Your task to perform on an android device: move a message to another label in the gmail app Image 0: 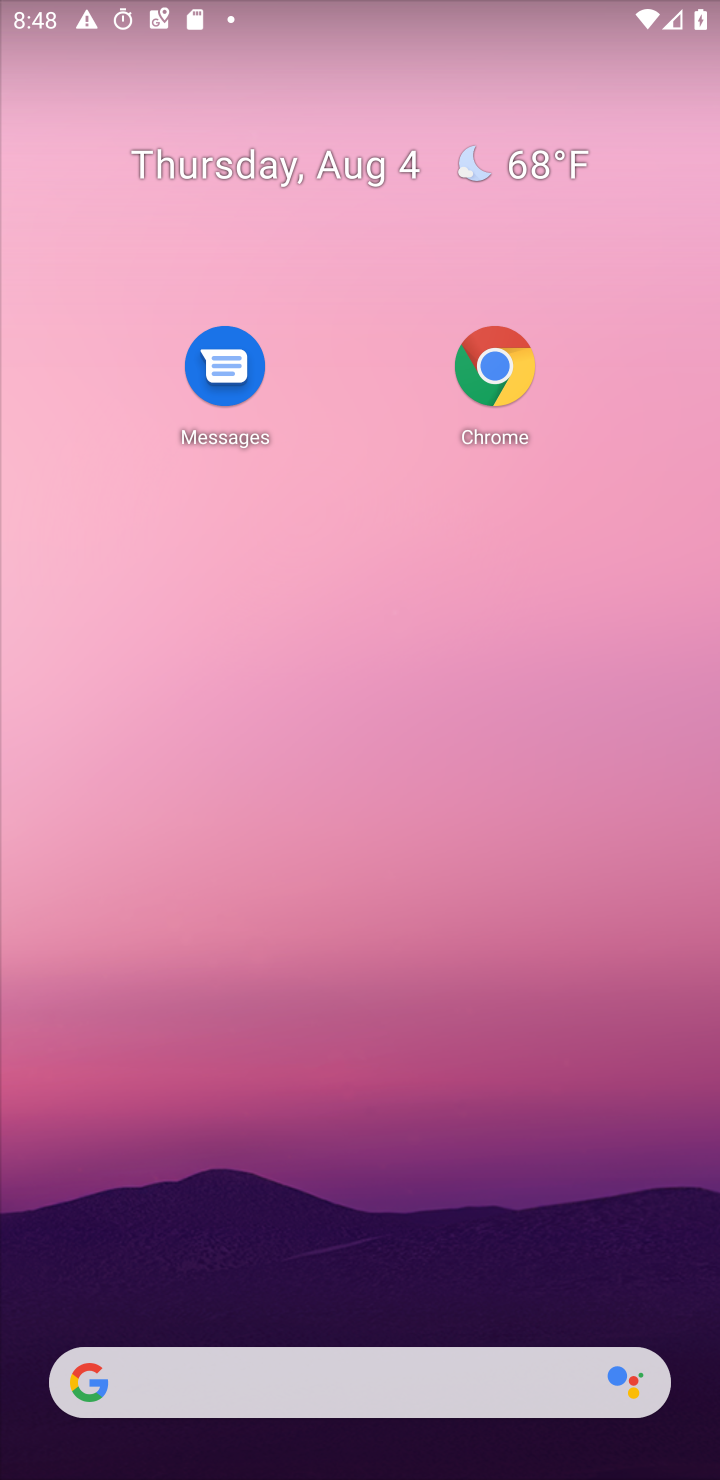
Step 0: press home button
Your task to perform on an android device: move a message to another label in the gmail app Image 1: 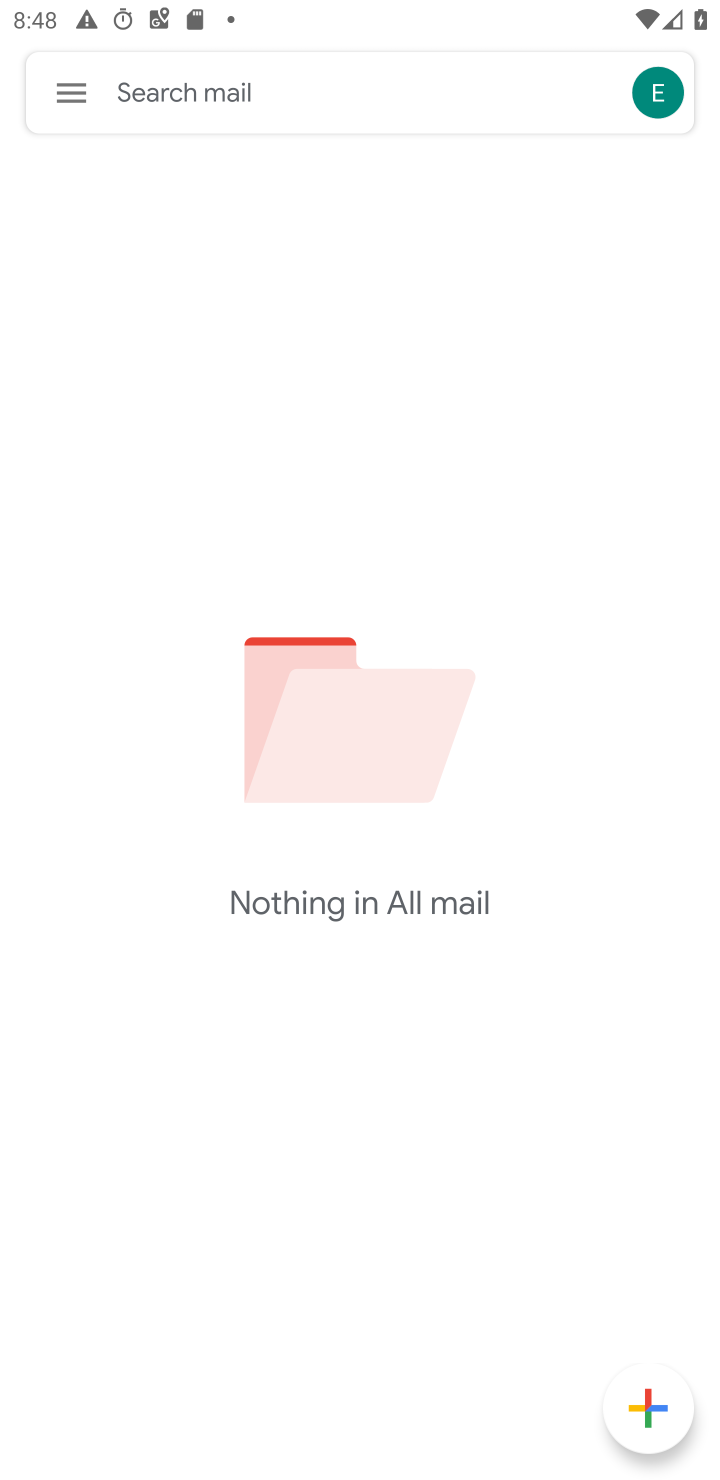
Step 1: drag from (479, 1386) to (392, 229)
Your task to perform on an android device: move a message to another label in the gmail app Image 2: 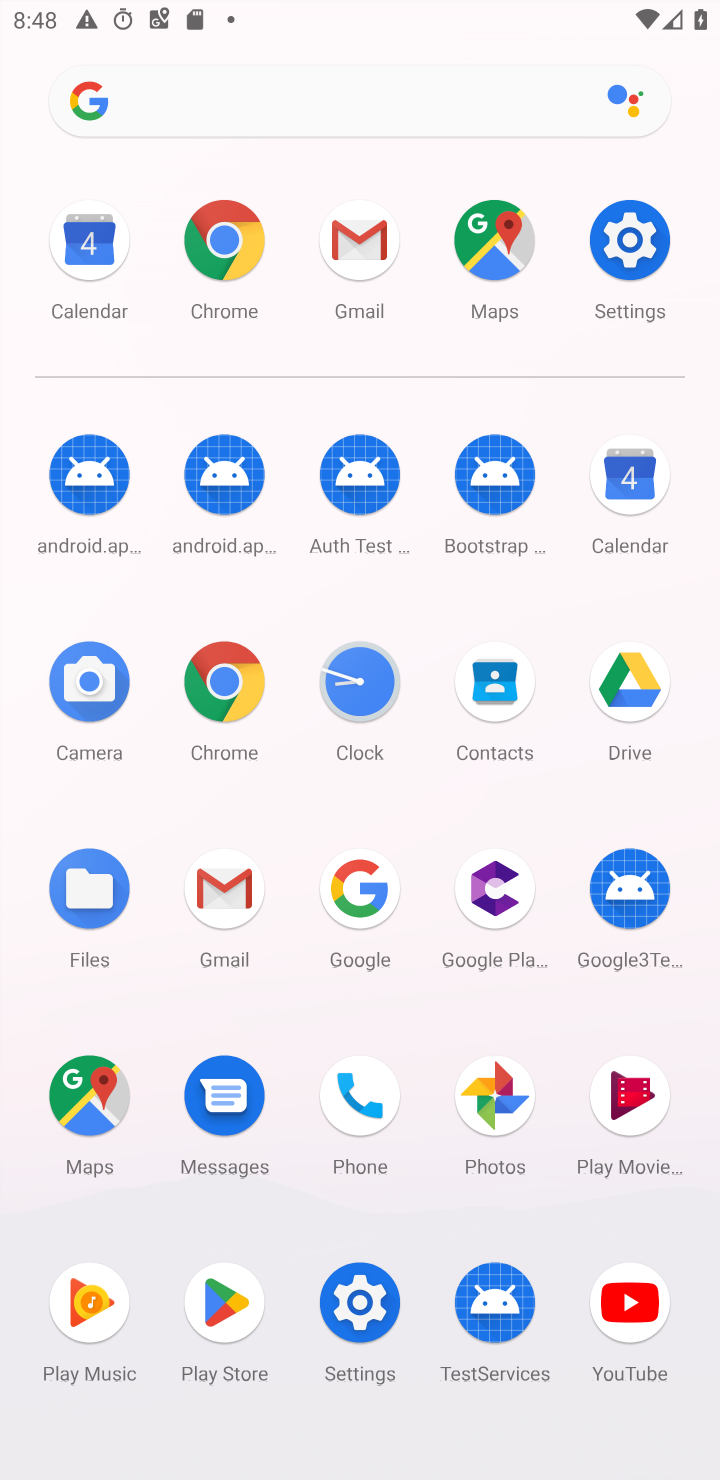
Step 2: click (348, 265)
Your task to perform on an android device: move a message to another label in the gmail app Image 3: 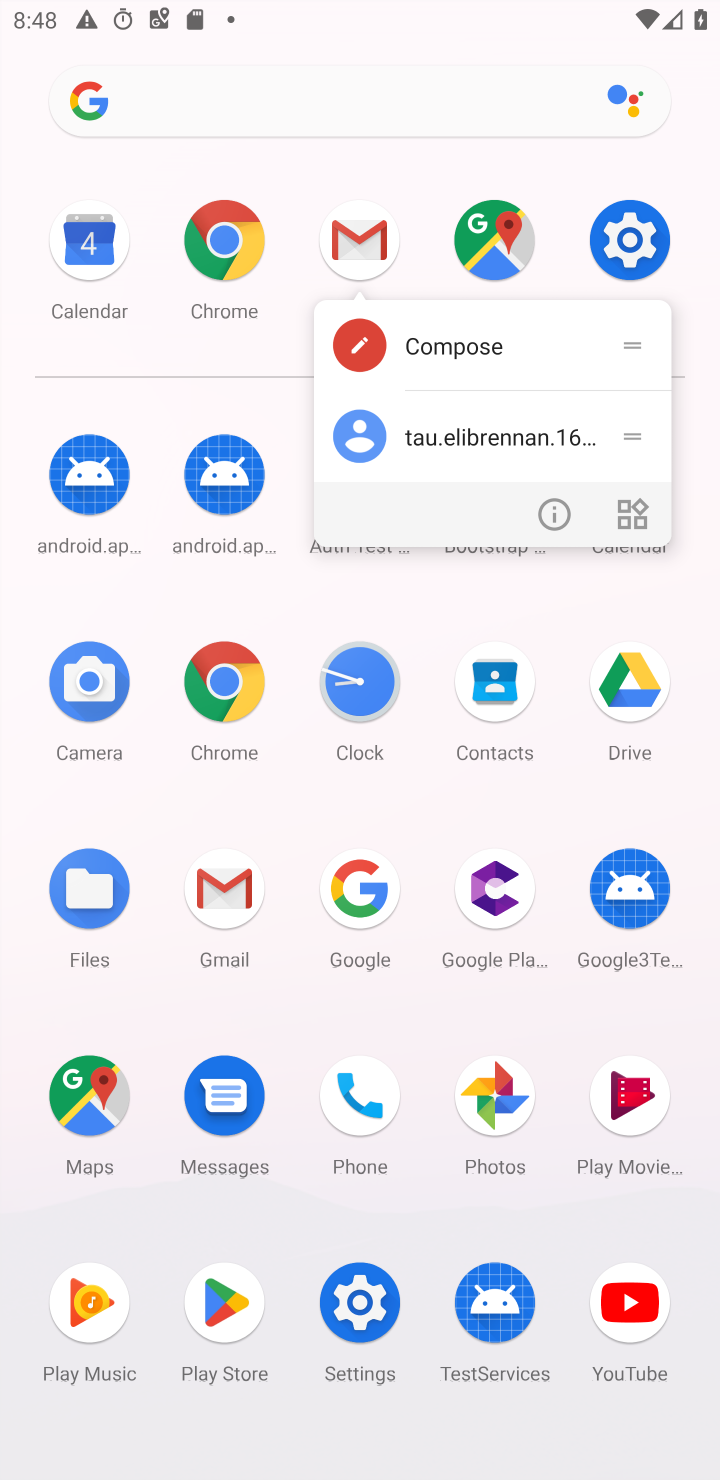
Step 3: click (344, 280)
Your task to perform on an android device: move a message to another label in the gmail app Image 4: 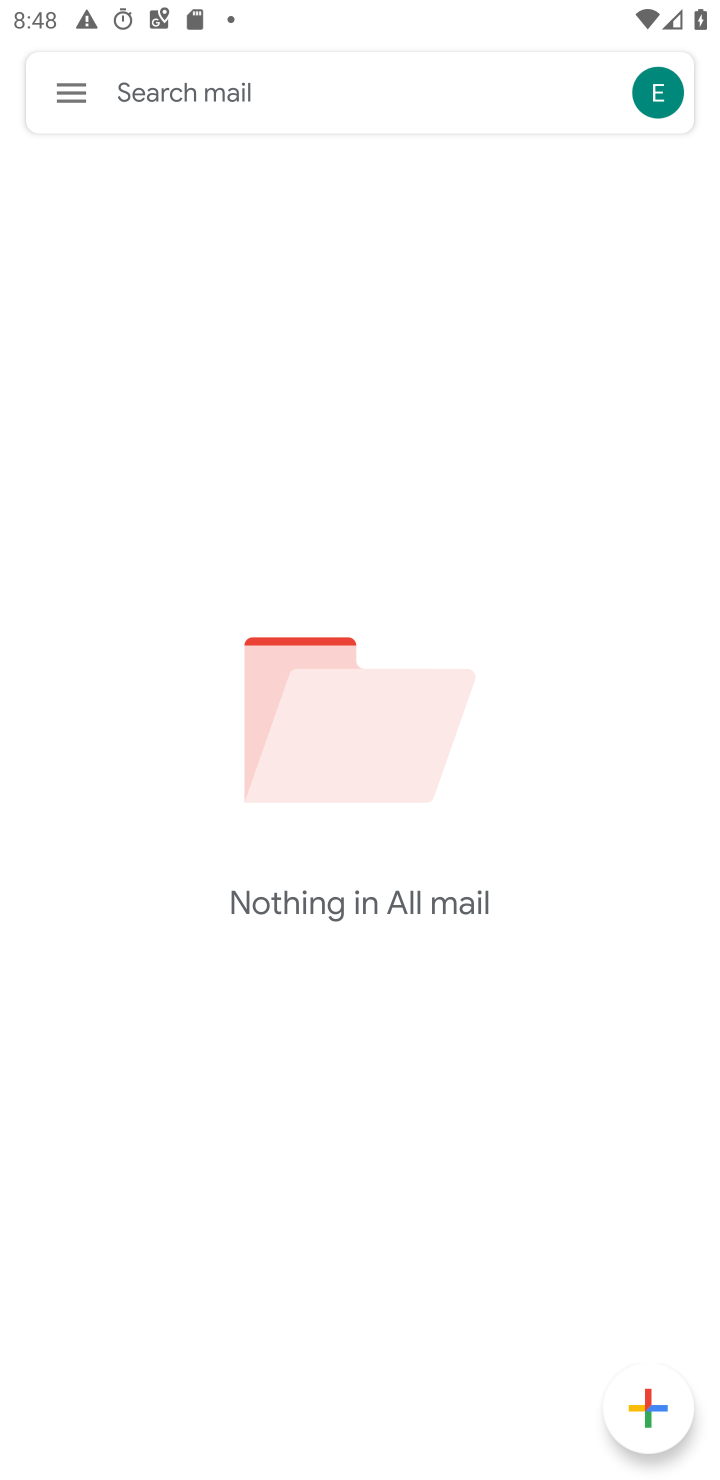
Step 4: click (83, 93)
Your task to perform on an android device: move a message to another label in the gmail app Image 5: 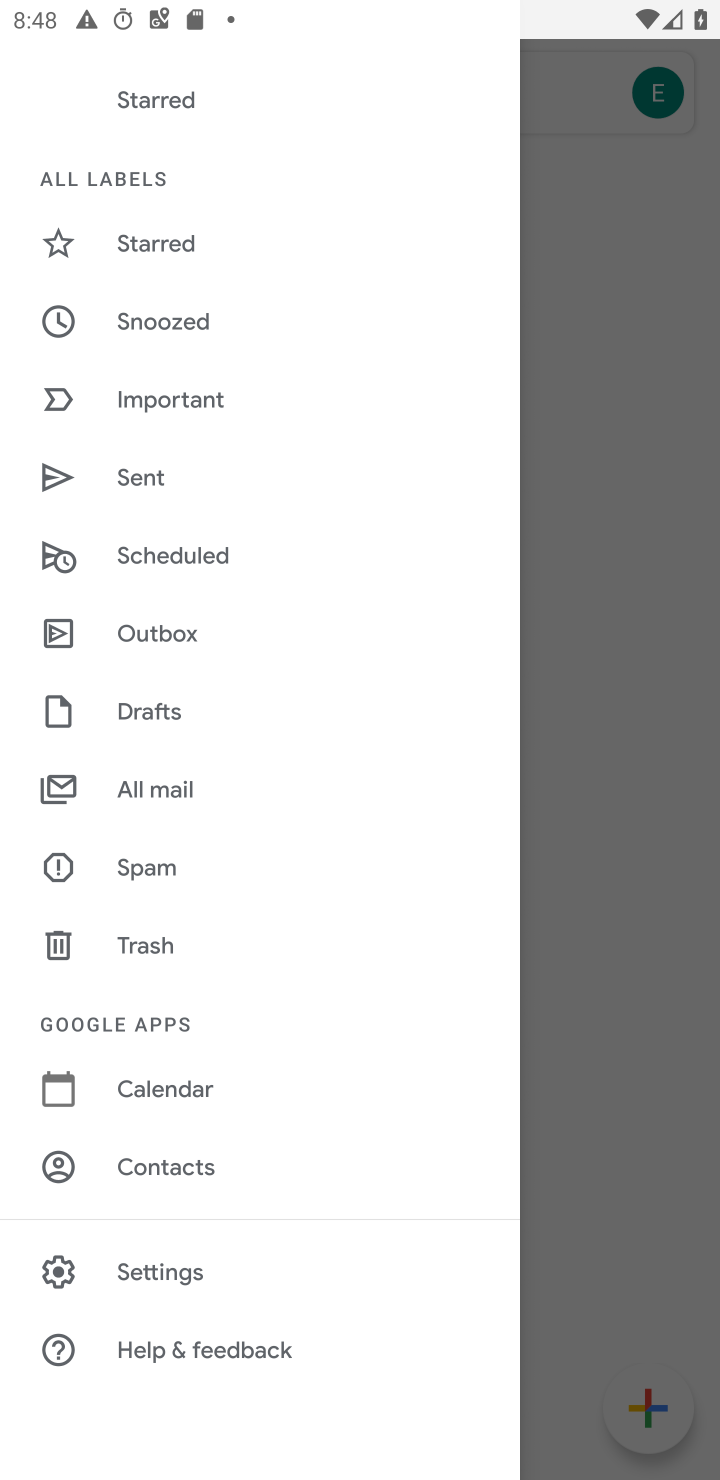
Step 5: click (159, 1267)
Your task to perform on an android device: move a message to another label in the gmail app Image 6: 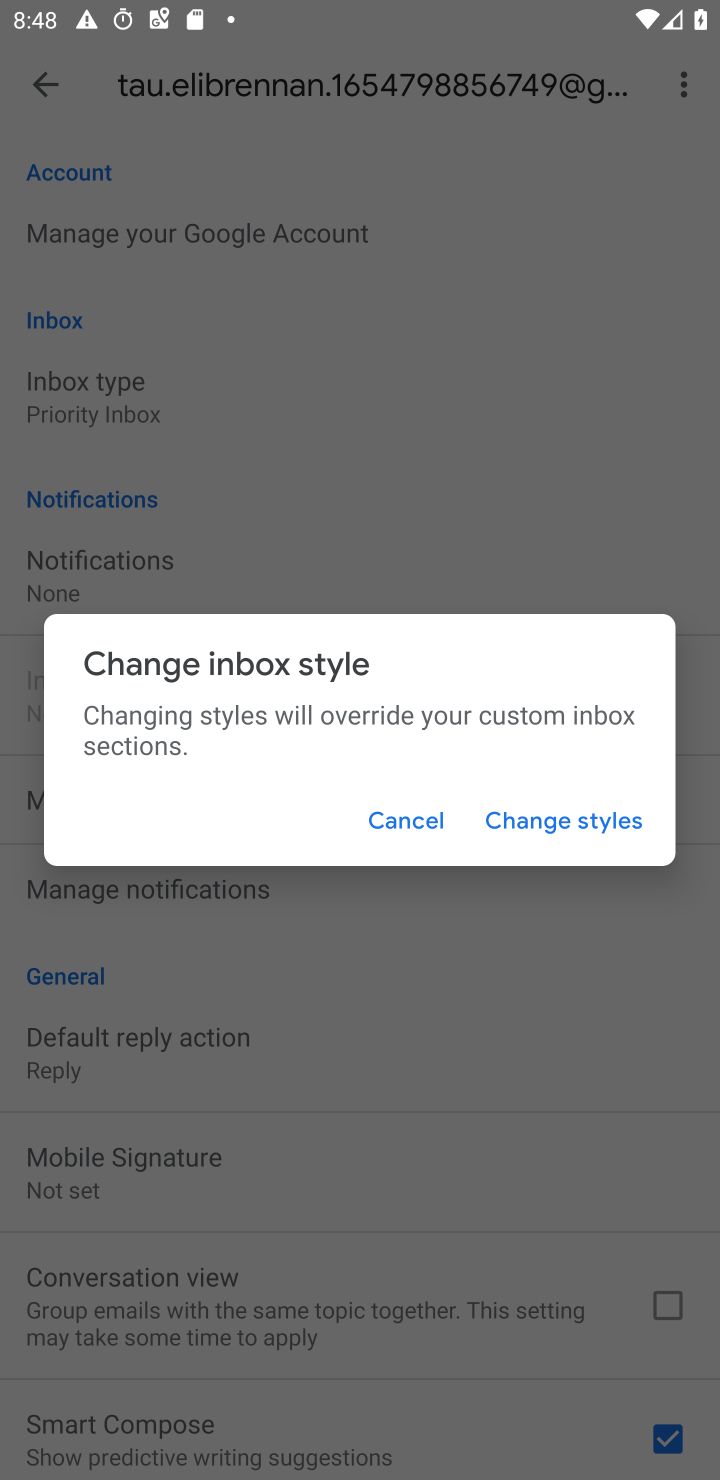
Step 6: click (393, 813)
Your task to perform on an android device: move a message to another label in the gmail app Image 7: 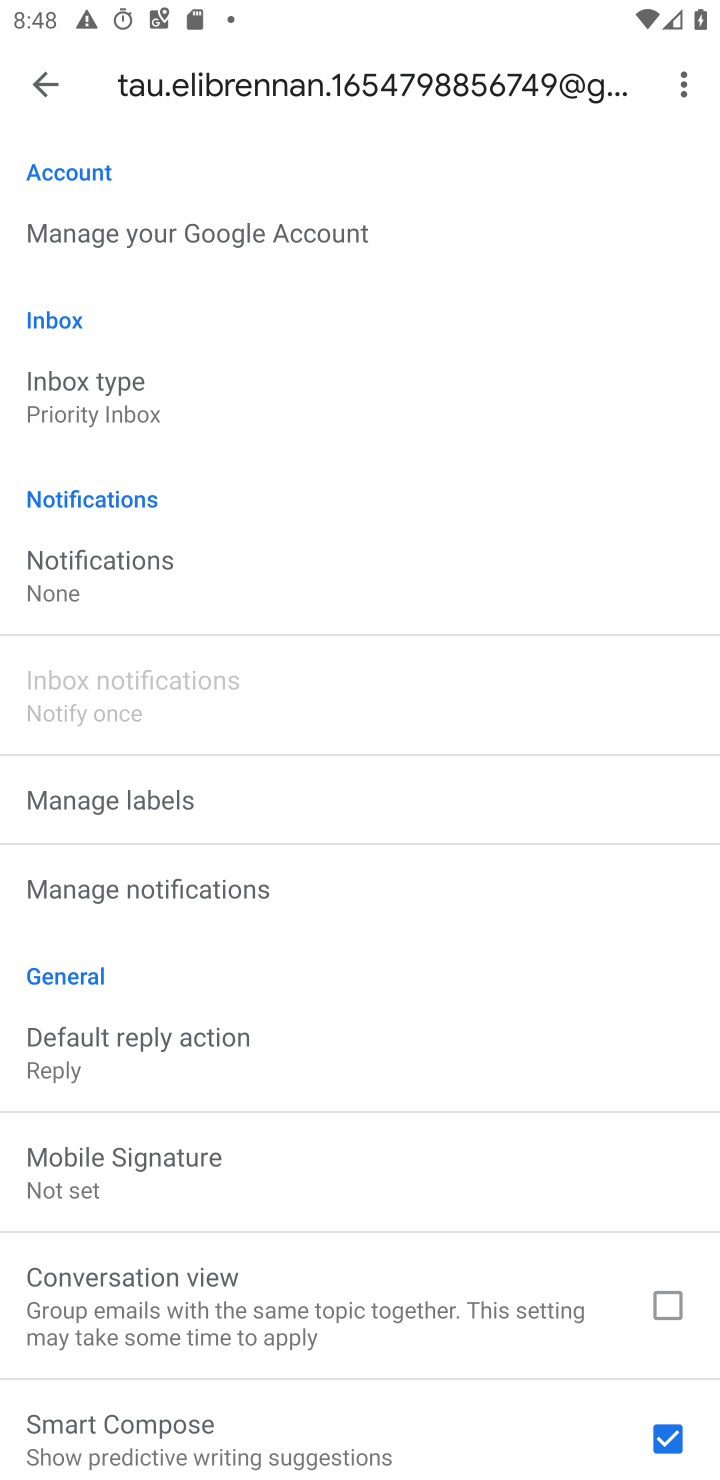
Step 7: click (192, 807)
Your task to perform on an android device: move a message to another label in the gmail app Image 8: 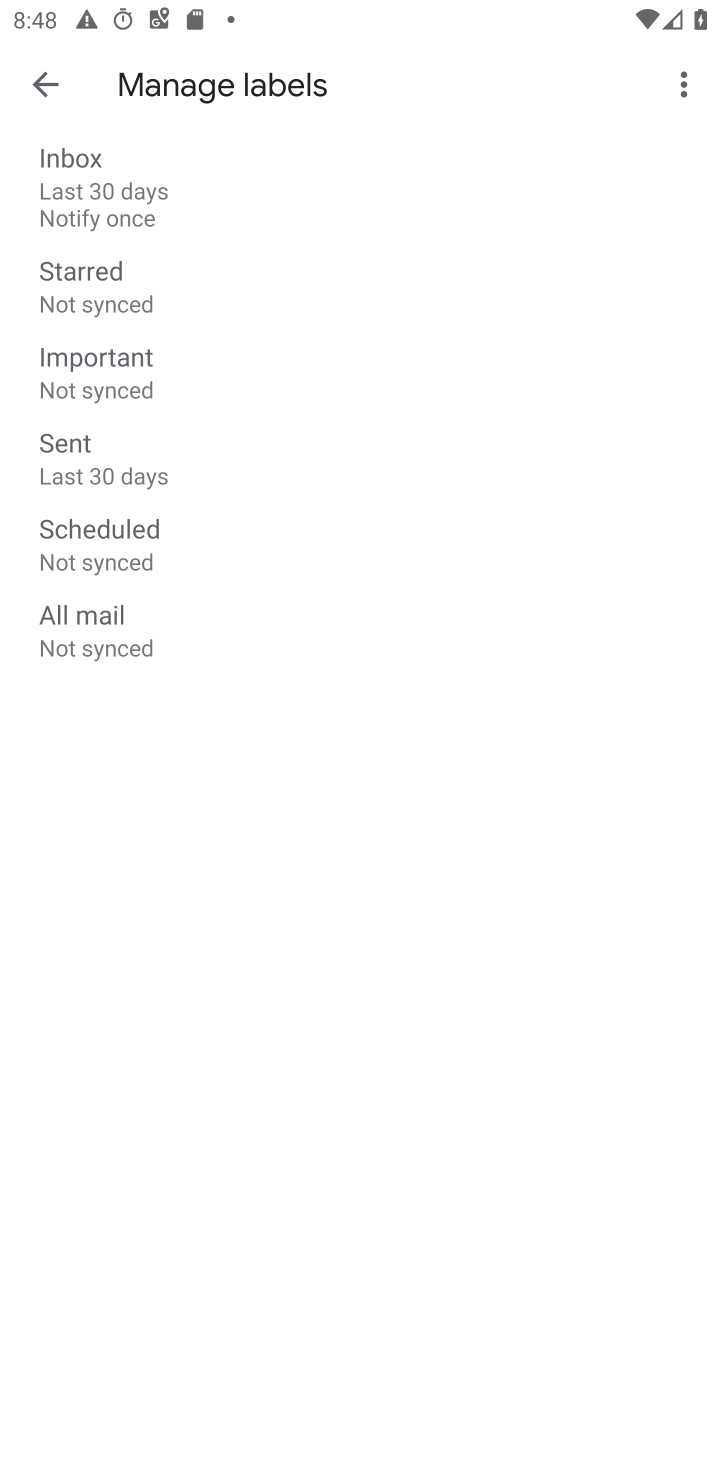
Step 8: click (138, 555)
Your task to perform on an android device: move a message to another label in the gmail app Image 9: 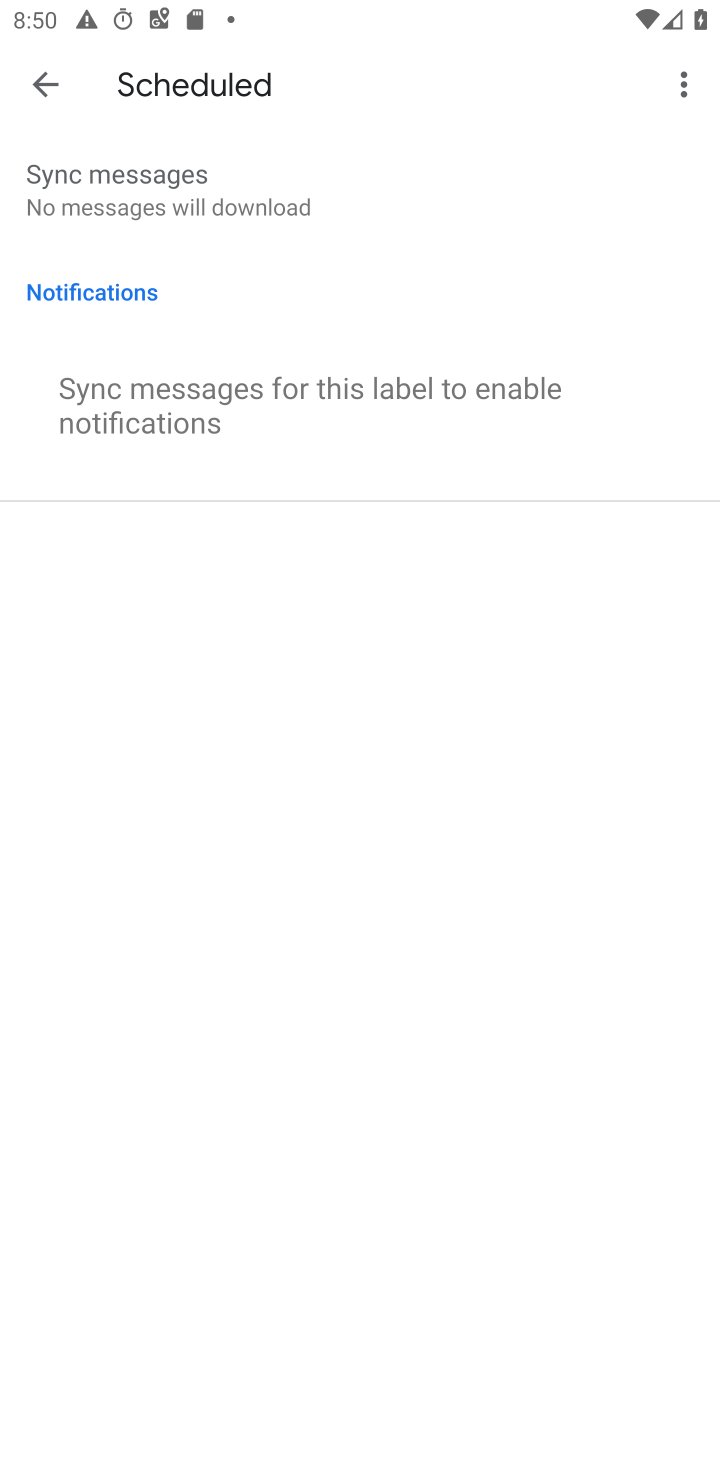
Step 9: task complete